Your task to perform on an android device: Go to Reddit.com Image 0: 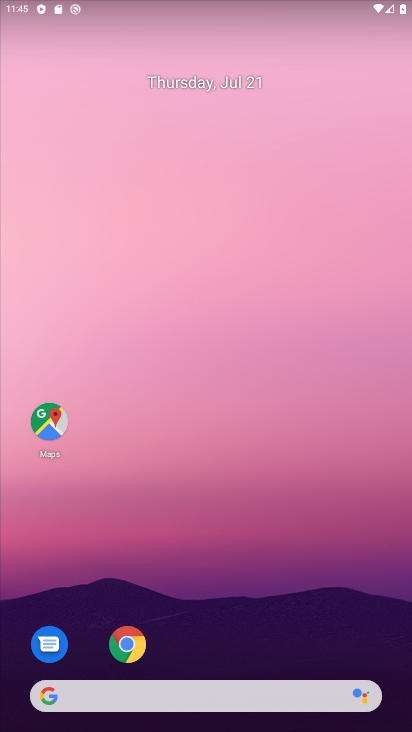
Step 0: drag from (239, 253) to (238, 144)
Your task to perform on an android device: Go to Reddit.com Image 1: 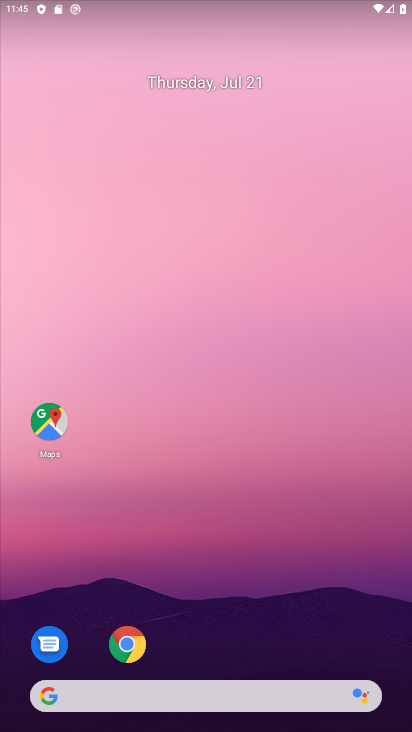
Step 1: drag from (117, 692) to (190, 135)
Your task to perform on an android device: Go to Reddit.com Image 2: 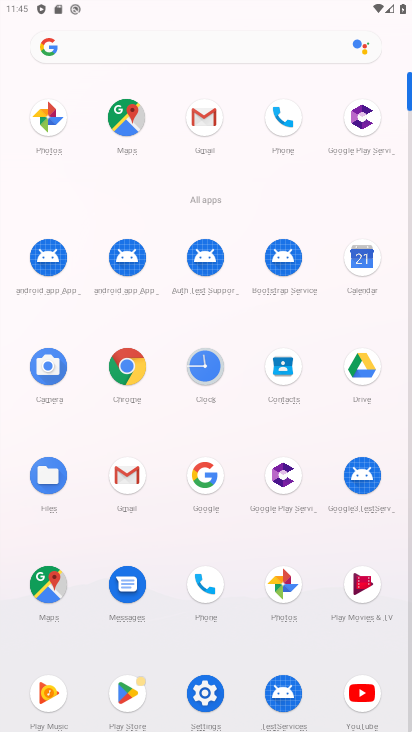
Step 2: drag from (246, 338) to (252, 304)
Your task to perform on an android device: Go to Reddit.com Image 3: 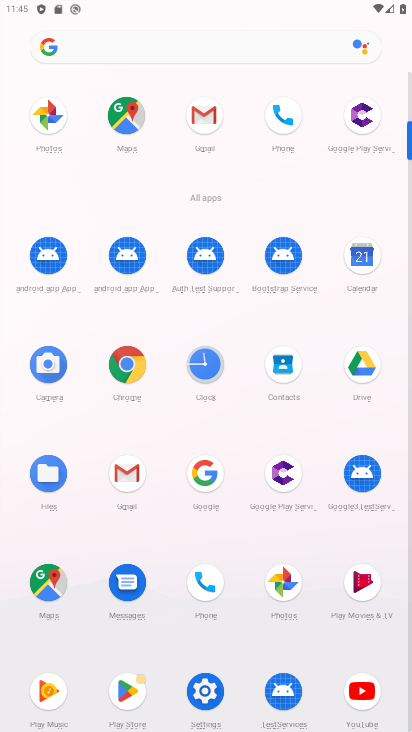
Step 3: drag from (192, 472) to (208, 159)
Your task to perform on an android device: Go to Reddit.com Image 4: 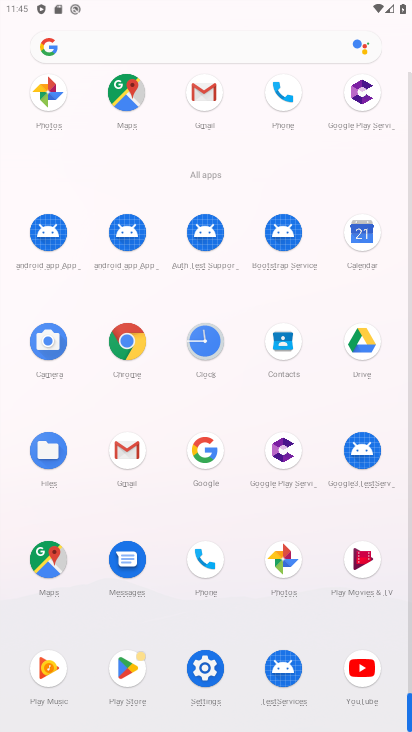
Step 4: click (128, 366)
Your task to perform on an android device: Go to Reddit.com Image 5: 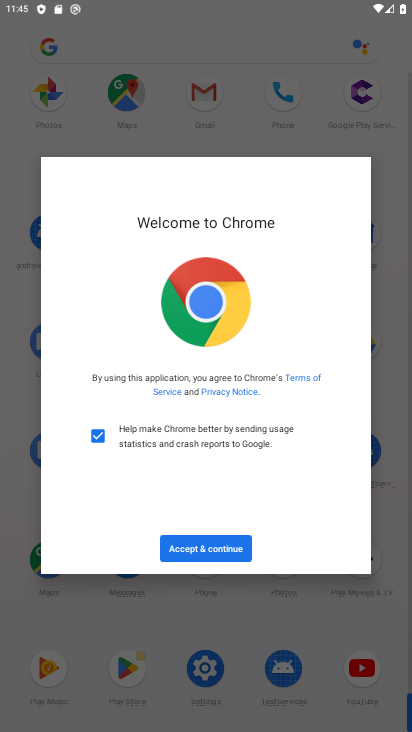
Step 5: click (210, 547)
Your task to perform on an android device: Go to Reddit.com Image 6: 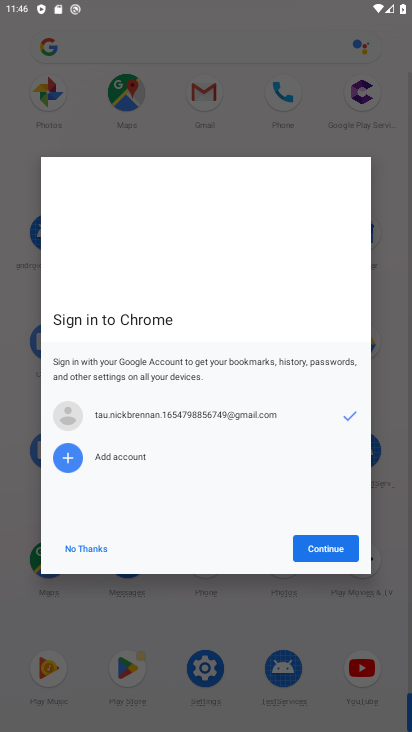
Step 6: click (321, 555)
Your task to perform on an android device: Go to Reddit.com Image 7: 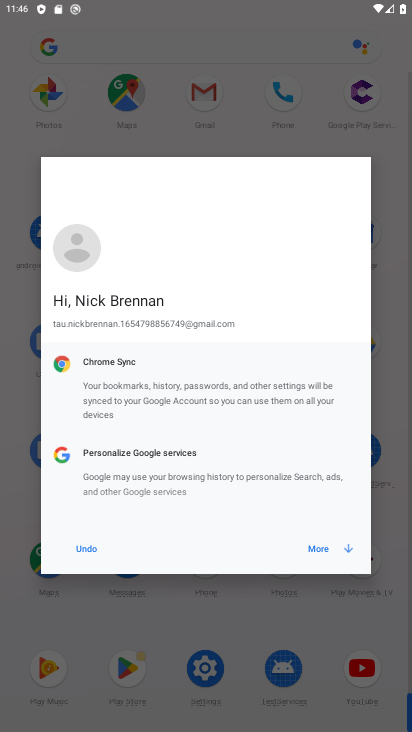
Step 7: click (324, 554)
Your task to perform on an android device: Go to Reddit.com Image 8: 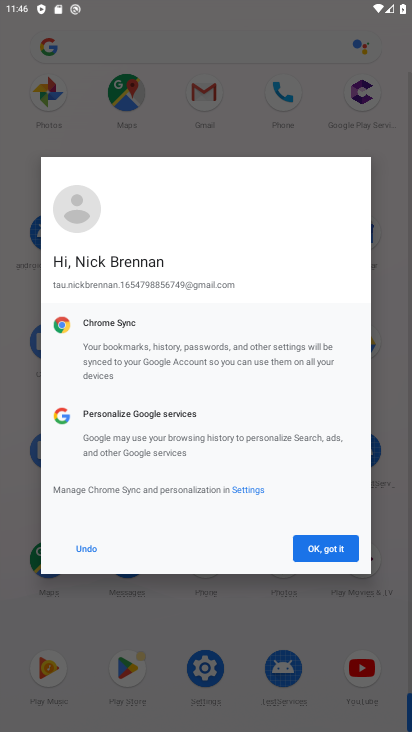
Step 8: click (326, 549)
Your task to perform on an android device: Go to Reddit.com Image 9: 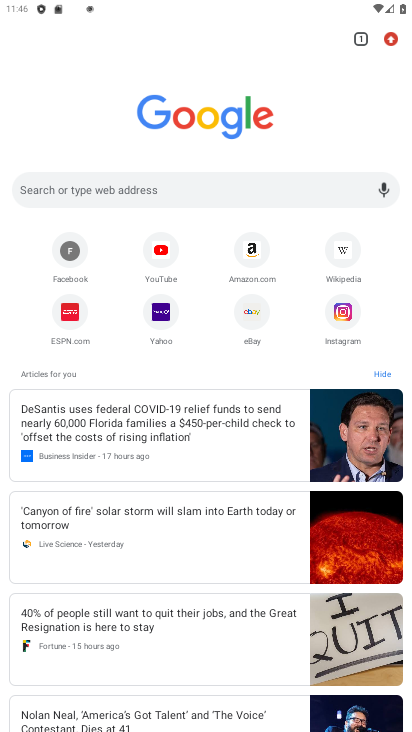
Step 9: click (281, 194)
Your task to perform on an android device: Go to Reddit.com Image 10: 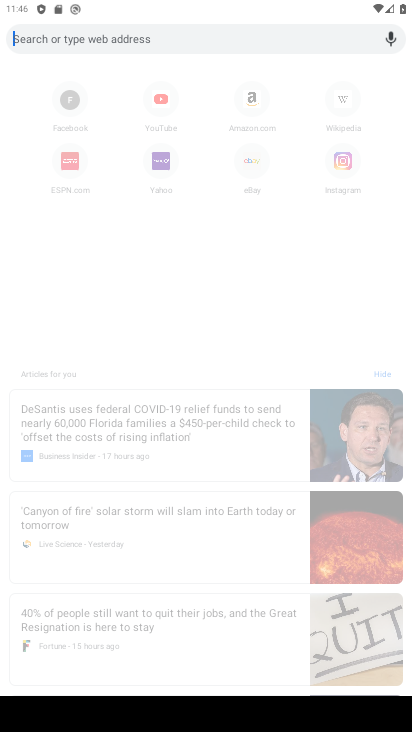
Step 10: click (234, 205)
Your task to perform on an android device: Go to Reddit.com Image 11: 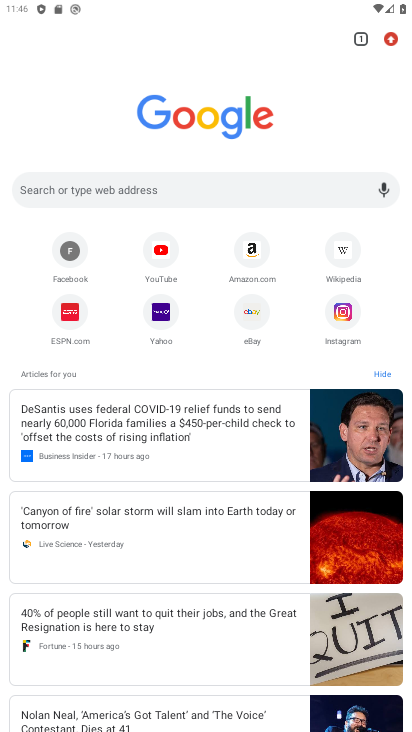
Step 11: type "reddit"
Your task to perform on an android device: Go to Reddit.com Image 12: 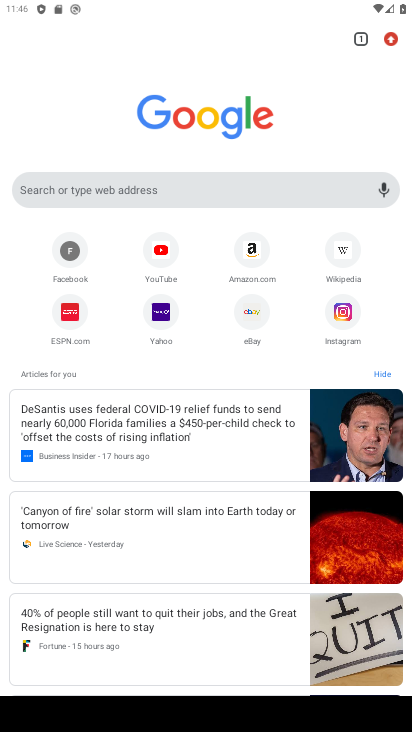
Step 12: click (137, 194)
Your task to perform on an android device: Go to Reddit.com Image 13: 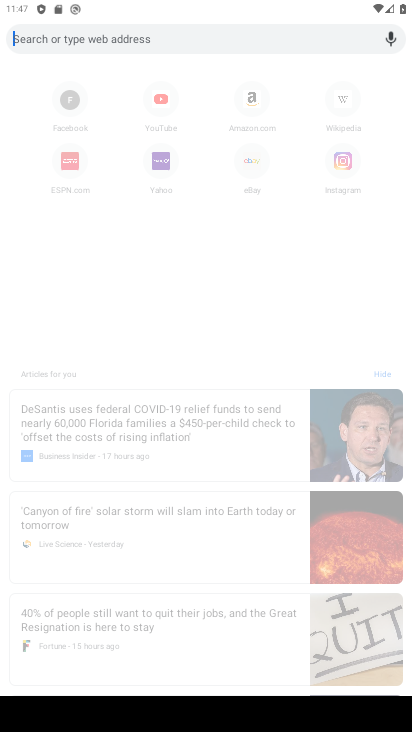
Step 13: type "reddit"
Your task to perform on an android device: Go to Reddit.com Image 14: 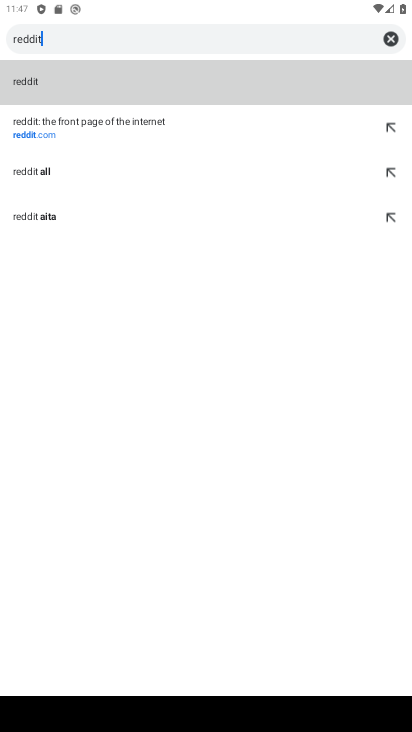
Step 14: click (95, 138)
Your task to perform on an android device: Go to Reddit.com Image 15: 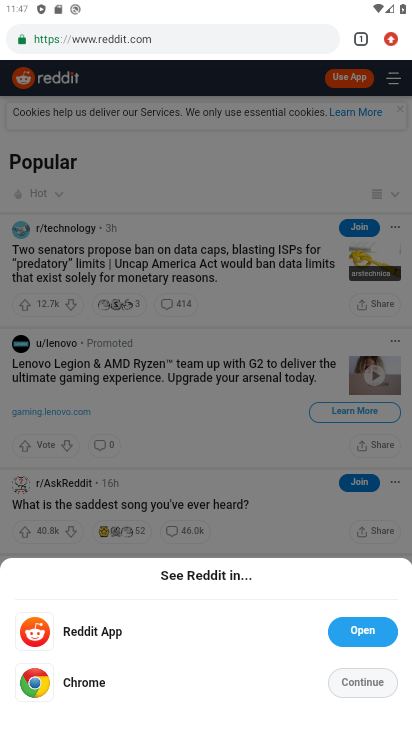
Step 15: task complete